Your task to perform on an android device: Find coffee shops on Maps Image 0: 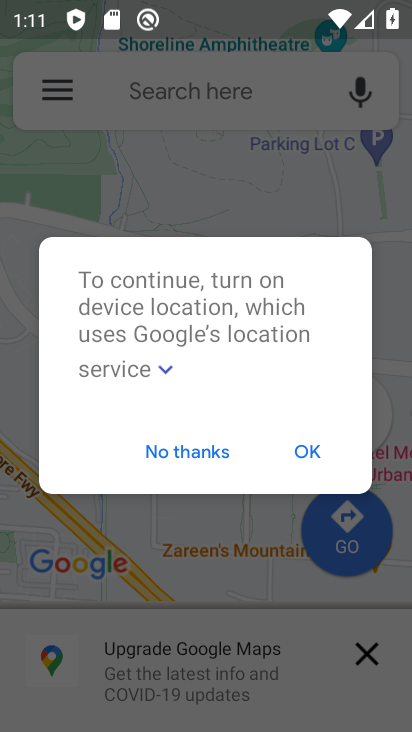
Step 0: click (310, 457)
Your task to perform on an android device: Find coffee shops on Maps Image 1: 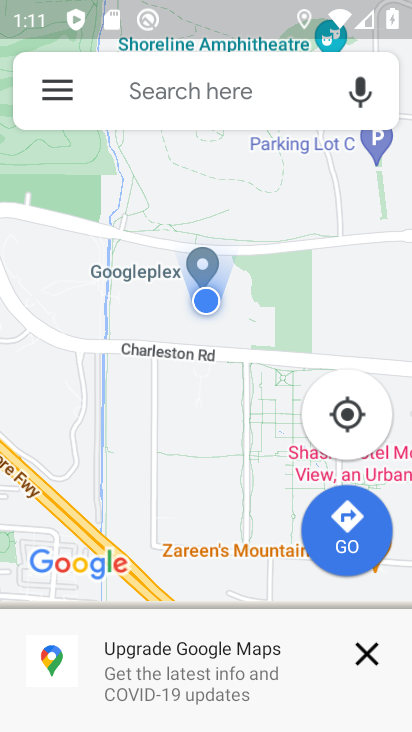
Step 1: click (176, 110)
Your task to perform on an android device: Find coffee shops on Maps Image 2: 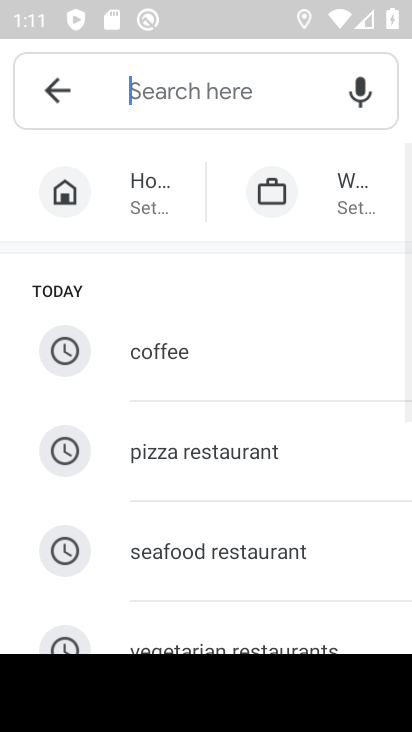
Step 2: click (190, 367)
Your task to perform on an android device: Find coffee shops on Maps Image 3: 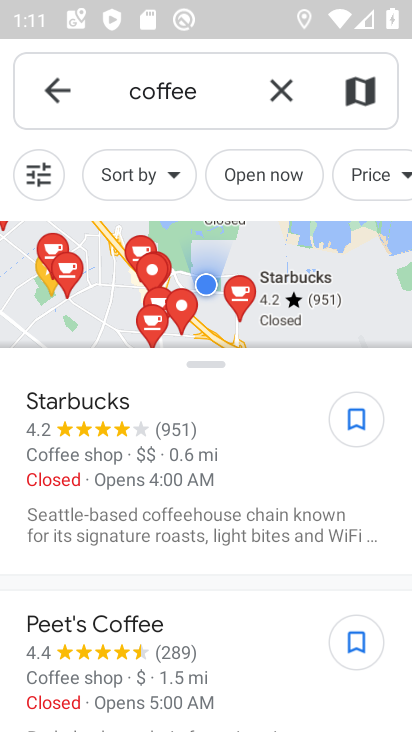
Step 3: task complete